Your task to perform on an android device: turn on wifi Image 0: 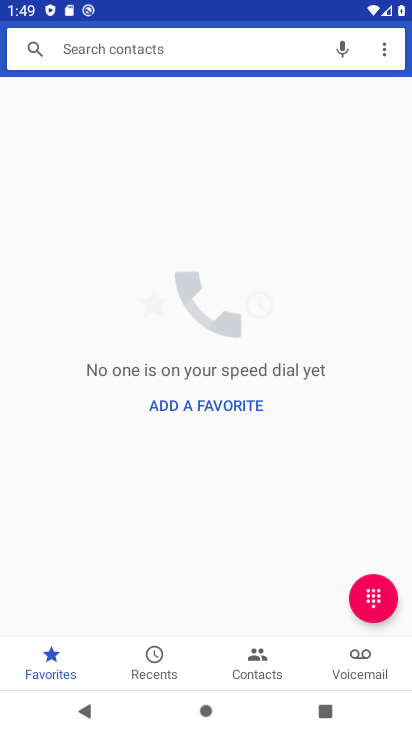
Step 0: press home button
Your task to perform on an android device: turn on wifi Image 1: 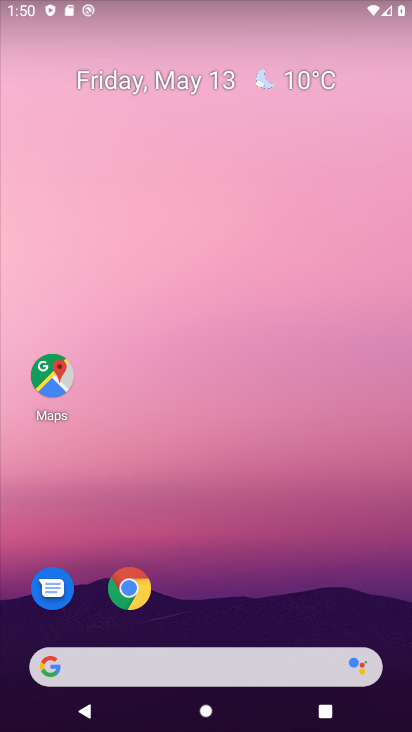
Step 1: task complete